Your task to perform on an android device: open app "Move to iOS" (install if not already installed) Image 0: 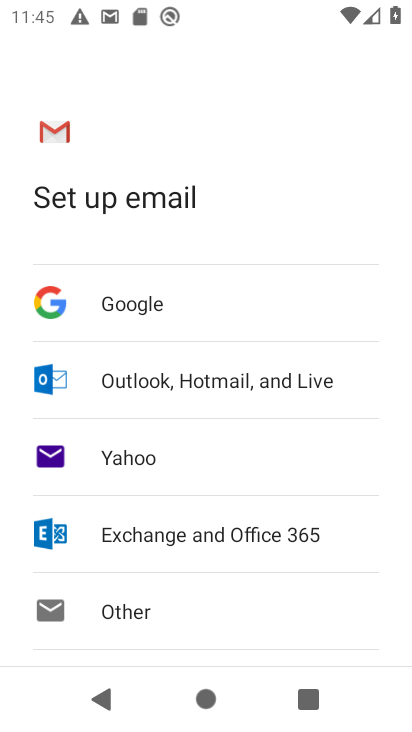
Step 0: press home button
Your task to perform on an android device: open app "Move to iOS" (install if not already installed) Image 1: 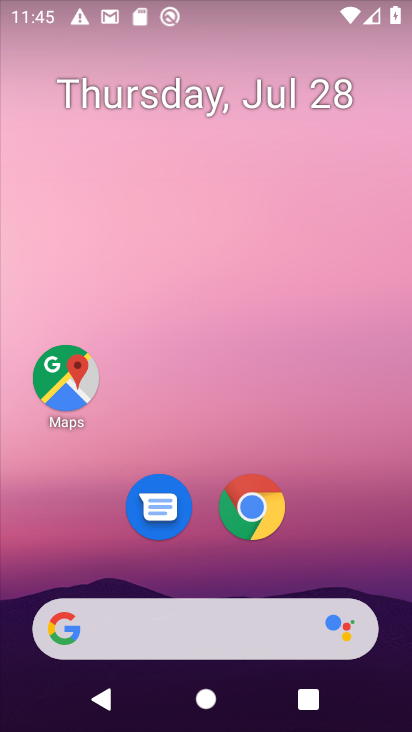
Step 1: drag from (206, 588) to (295, 10)
Your task to perform on an android device: open app "Move to iOS" (install if not already installed) Image 2: 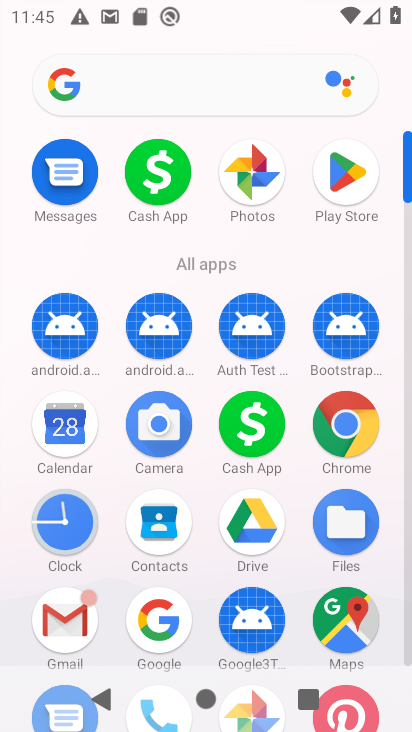
Step 2: click (362, 190)
Your task to perform on an android device: open app "Move to iOS" (install if not already installed) Image 3: 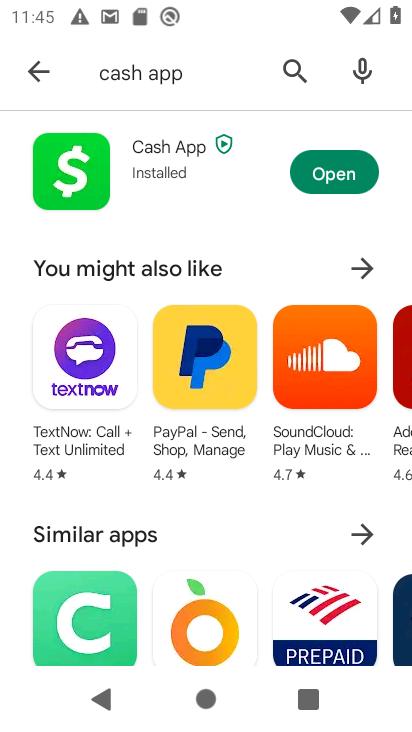
Step 3: click (188, 80)
Your task to perform on an android device: open app "Move to iOS" (install if not already installed) Image 4: 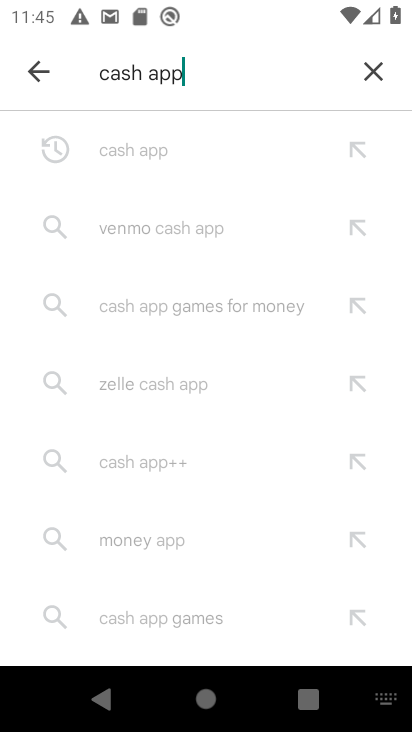
Step 4: click (363, 78)
Your task to perform on an android device: open app "Move to iOS" (install if not already installed) Image 5: 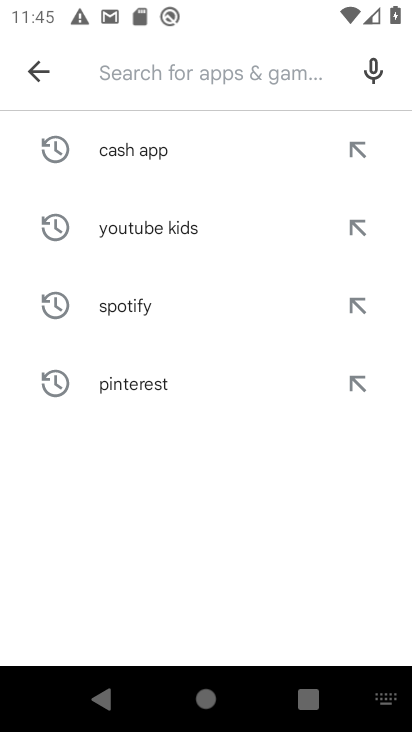
Step 5: type "Move to ios"
Your task to perform on an android device: open app "Move to iOS" (install if not already installed) Image 6: 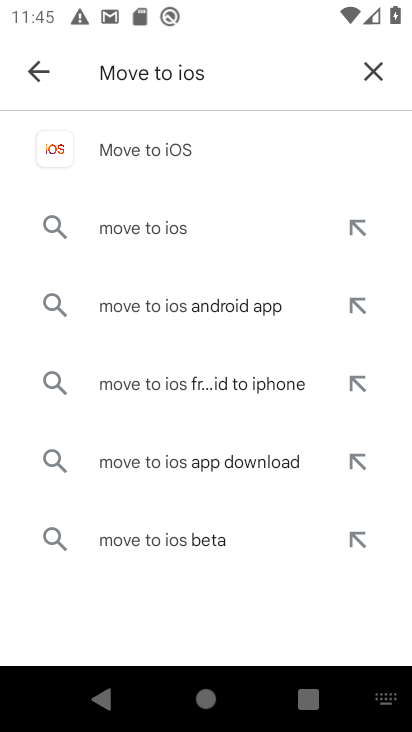
Step 6: click (134, 157)
Your task to perform on an android device: open app "Move to iOS" (install if not already installed) Image 7: 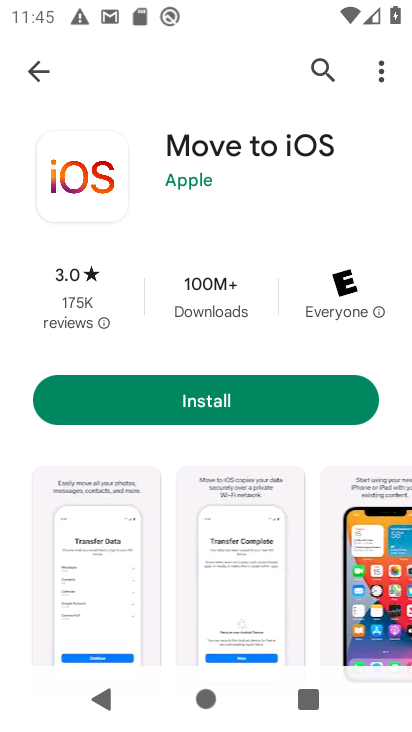
Step 7: click (205, 416)
Your task to perform on an android device: open app "Move to iOS" (install if not already installed) Image 8: 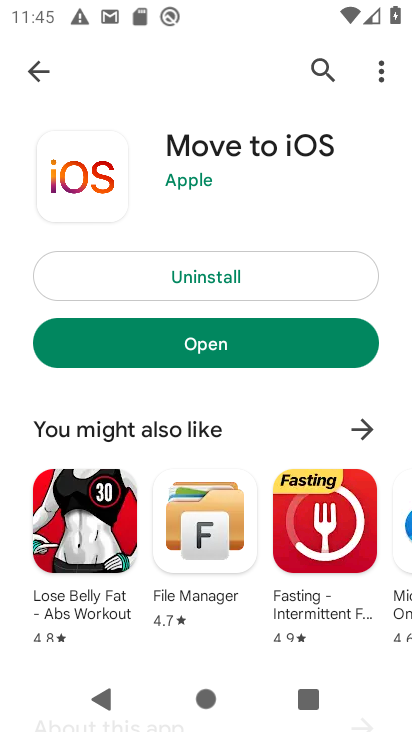
Step 8: click (211, 341)
Your task to perform on an android device: open app "Move to iOS" (install if not already installed) Image 9: 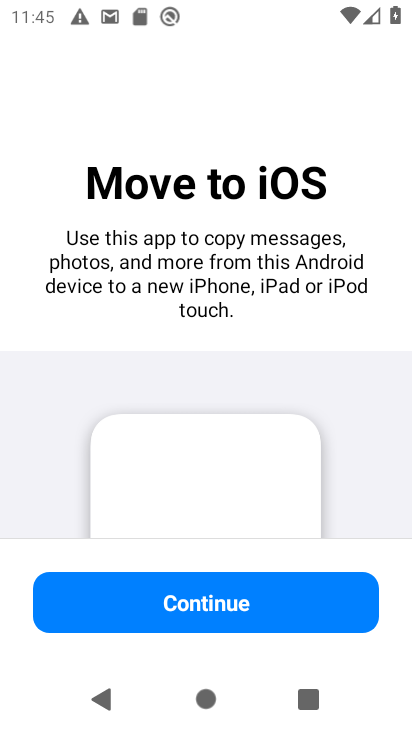
Step 9: click (232, 601)
Your task to perform on an android device: open app "Move to iOS" (install if not already installed) Image 10: 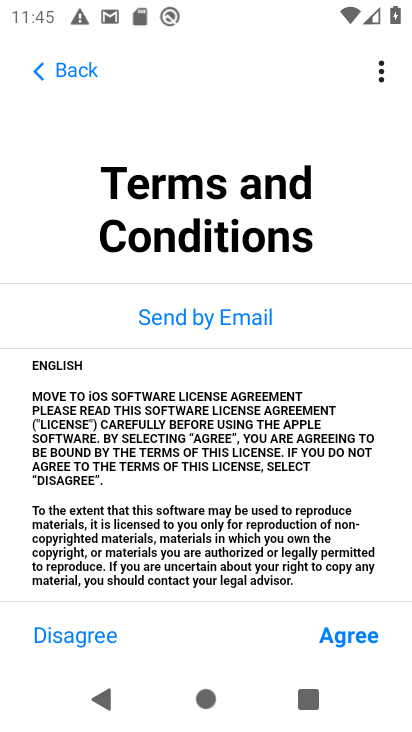
Step 10: click (327, 628)
Your task to perform on an android device: open app "Move to iOS" (install if not already installed) Image 11: 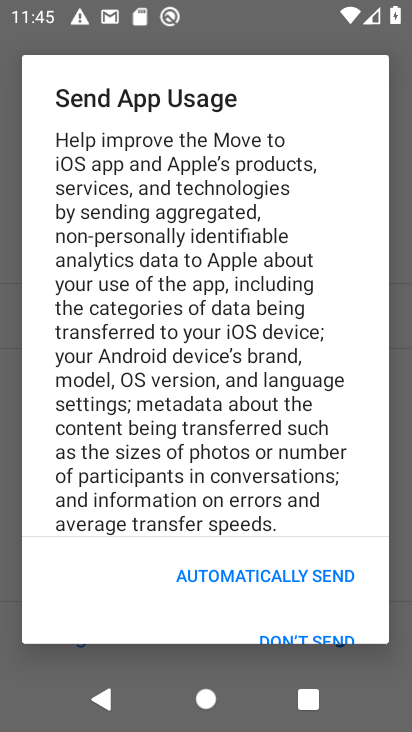
Step 11: drag from (310, 616) to (315, 493)
Your task to perform on an android device: open app "Move to iOS" (install if not already installed) Image 12: 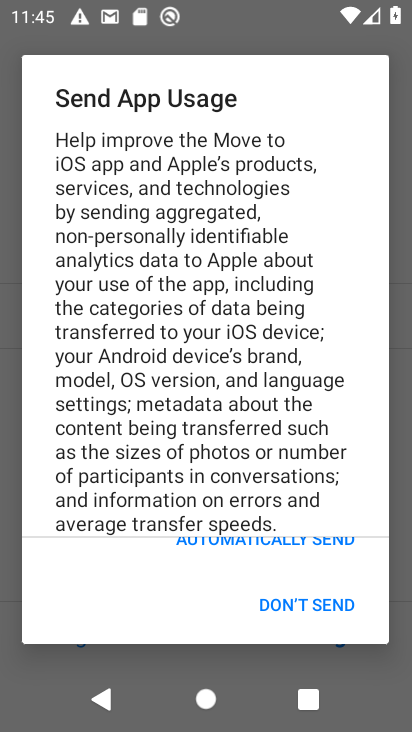
Step 12: click (303, 606)
Your task to perform on an android device: open app "Move to iOS" (install if not already installed) Image 13: 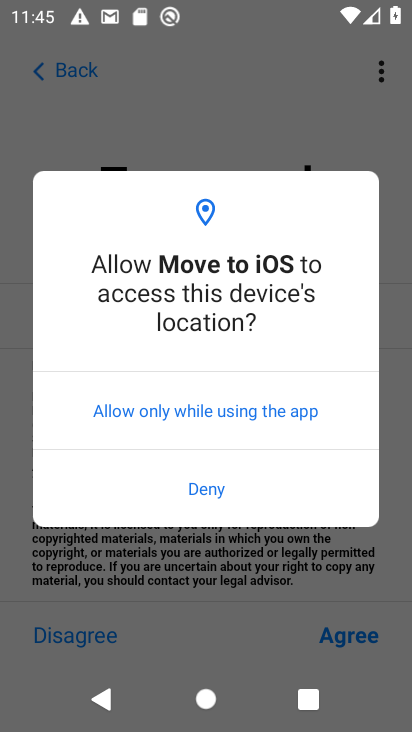
Step 13: click (218, 417)
Your task to perform on an android device: open app "Move to iOS" (install if not already installed) Image 14: 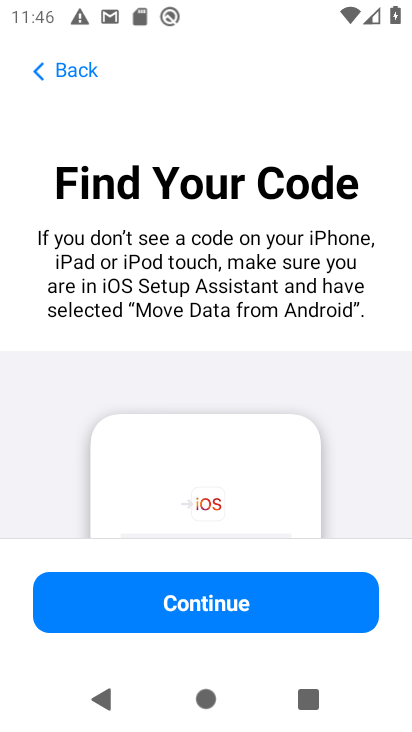
Step 14: click (213, 617)
Your task to perform on an android device: open app "Move to iOS" (install if not already installed) Image 15: 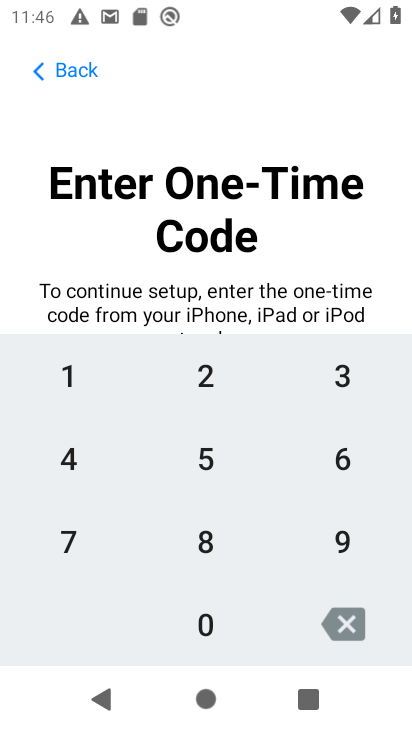
Step 15: task complete